Your task to perform on an android device: Turn on the flashlight Image 0: 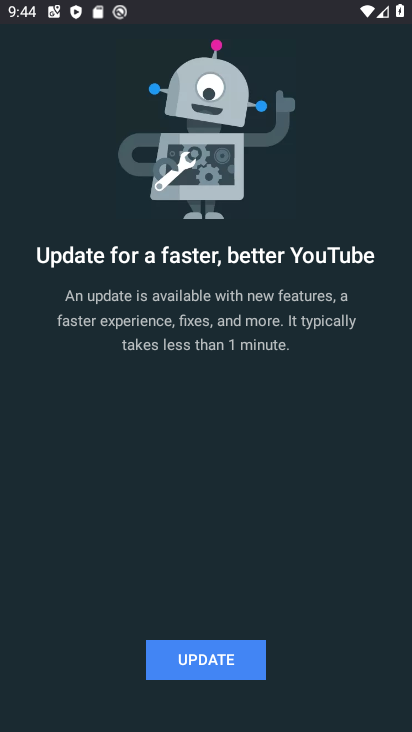
Step 0: press home button
Your task to perform on an android device: Turn on the flashlight Image 1: 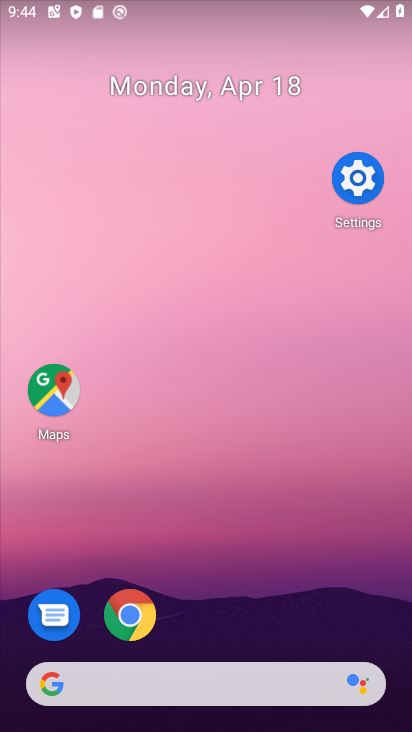
Step 1: task complete